Your task to perform on an android device: Go to ESPN.com Image 0: 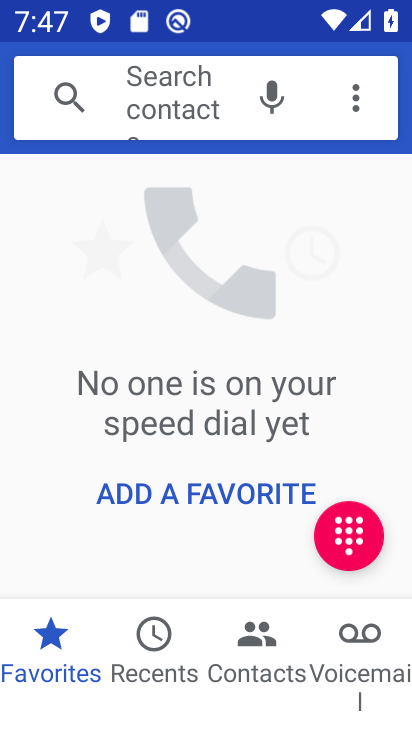
Step 0: press back button
Your task to perform on an android device: Go to ESPN.com Image 1: 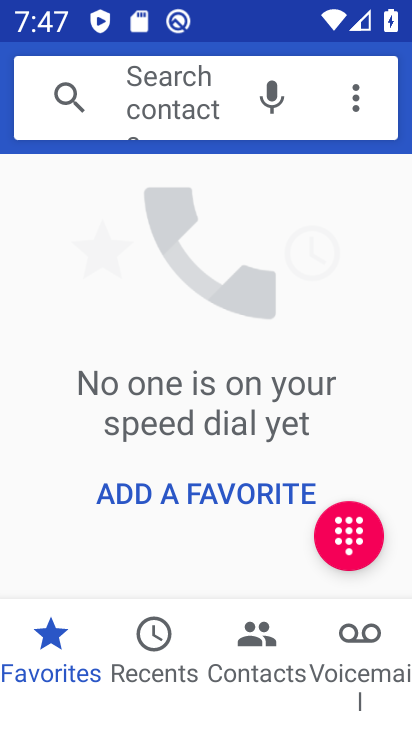
Step 1: press back button
Your task to perform on an android device: Go to ESPN.com Image 2: 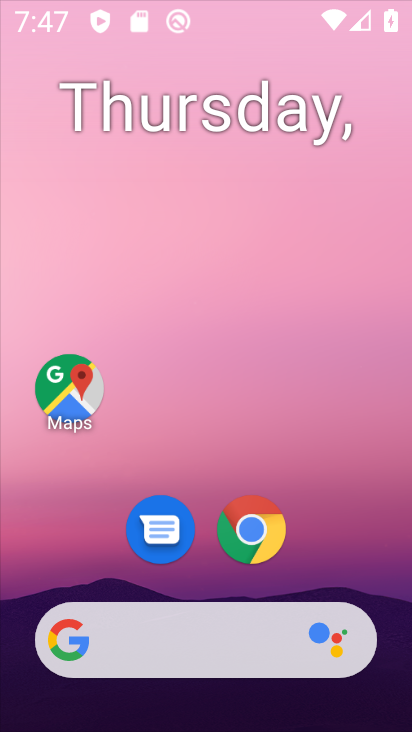
Step 2: press back button
Your task to perform on an android device: Go to ESPN.com Image 3: 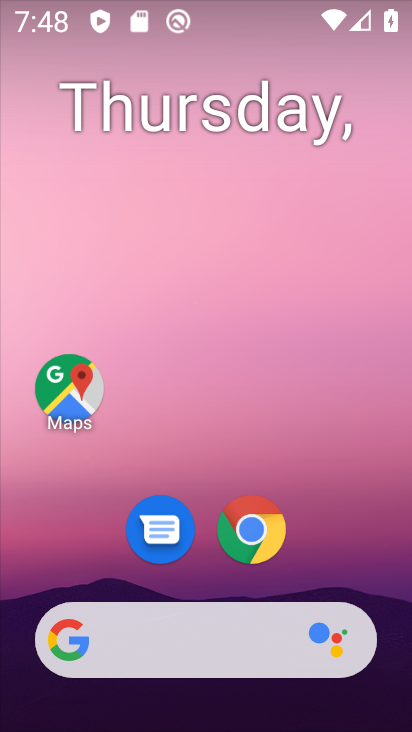
Step 3: drag from (250, 682) to (216, 54)
Your task to perform on an android device: Go to ESPN.com Image 4: 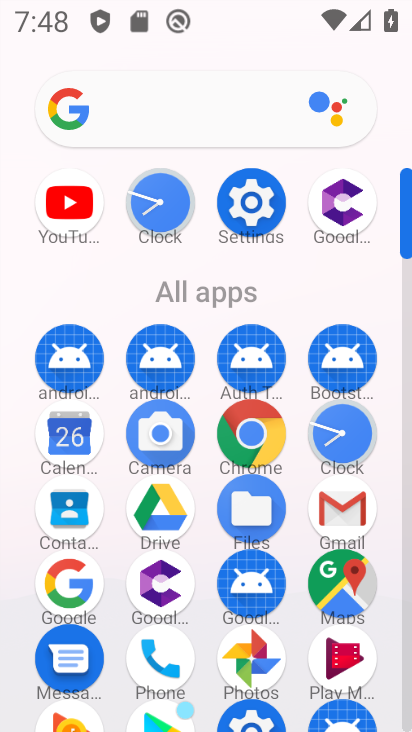
Step 4: drag from (185, 563) to (166, 56)
Your task to perform on an android device: Go to ESPN.com Image 5: 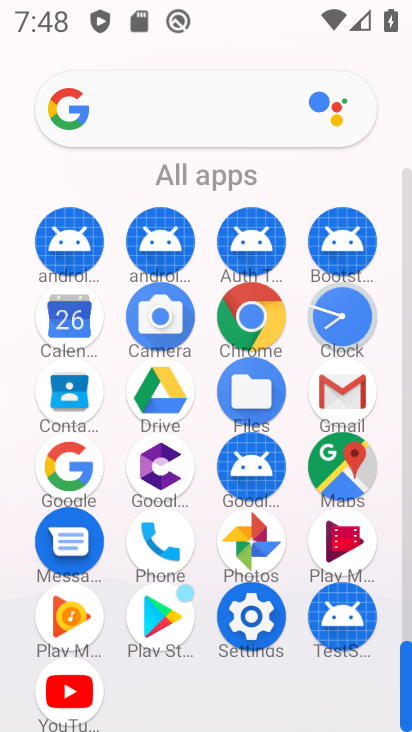
Step 5: click (250, 325)
Your task to perform on an android device: Go to ESPN.com Image 6: 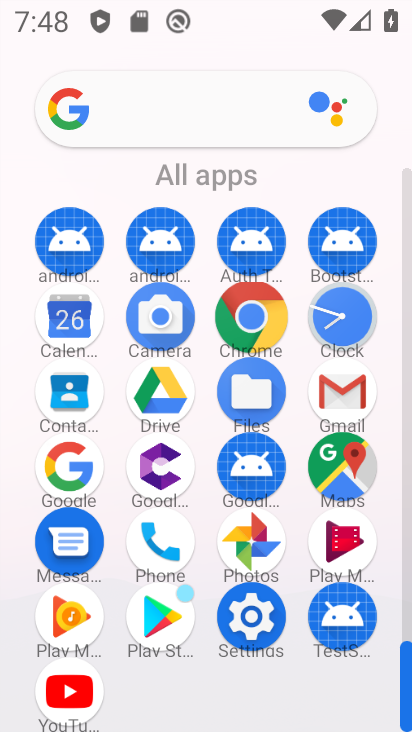
Step 6: click (249, 324)
Your task to perform on an android device: Go to ESPN.com Image 7: 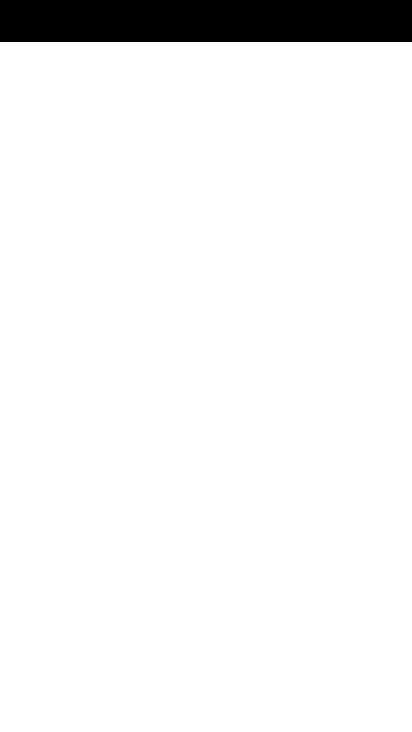
Step 7: click (248, 327)
Your task to perform on an android device: Go to ESPN.com Image 8: 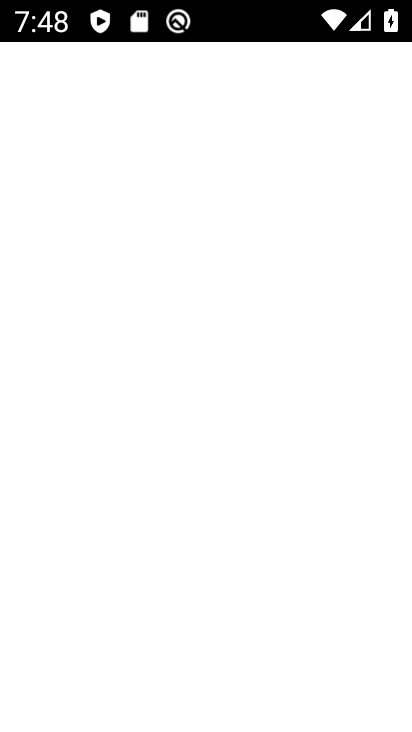
Step 8: click (247, 328)
Your task to perform on an android device: Go to ESPN.com Image 9: 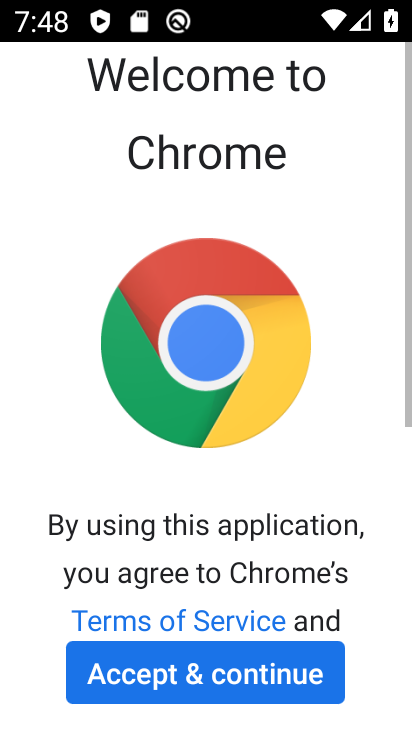
Step 9: click (244, 330)
Your task to perform on an android device: Go to ESPN.com Image 10: 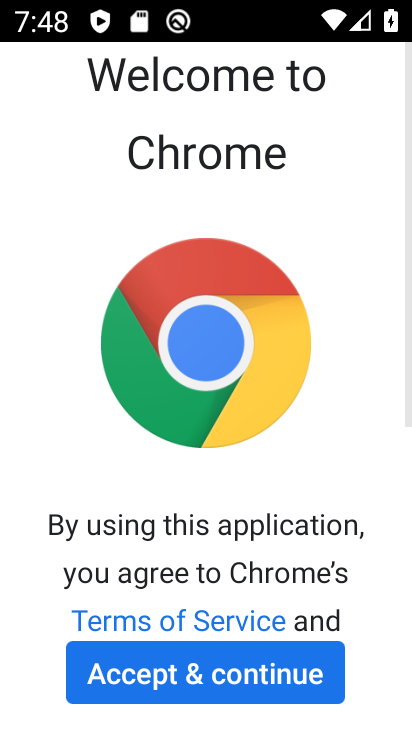
Step 10: click (238, 680)
Your task to perform on an android device: Go to ESPN.com Image 11: 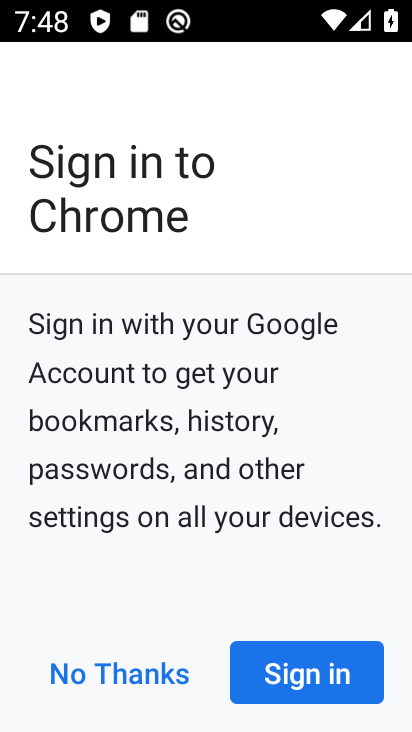
Step 11: click (238, 680)
Your task to perform on an android device: Go to ESPN.com Image 12: 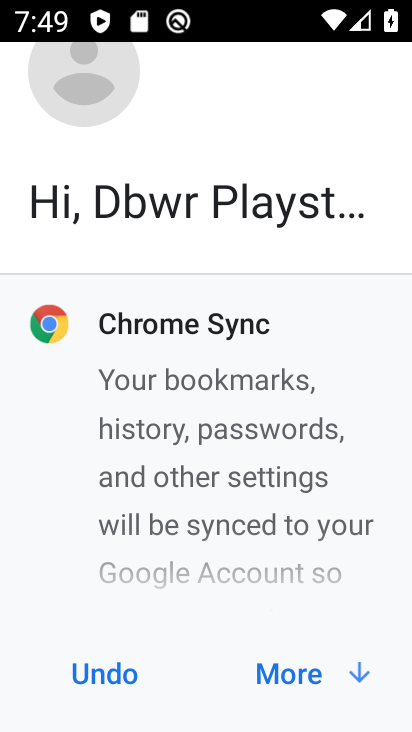
Step 12: click (305, 676)
Your task to perform on an android device: Go to ESPN.com Image 13: 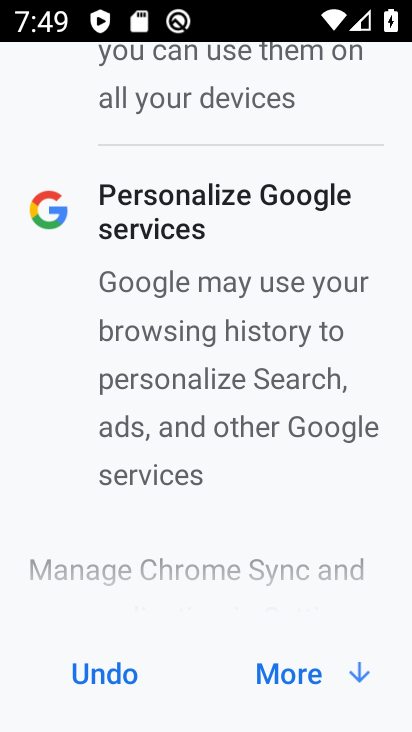
Step 13: click (307, 671)
Your task to perform on an android device: Go to ESPN.com Image 14: 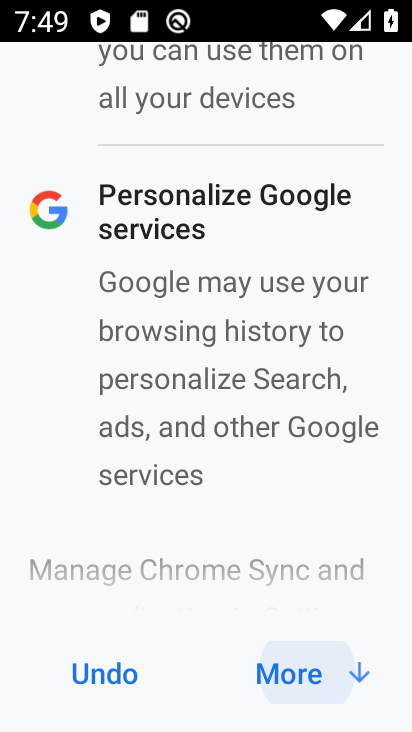
Step 14: click (308, 672)
Your task to perform on an android device: Go to ESPN.com Image 15: 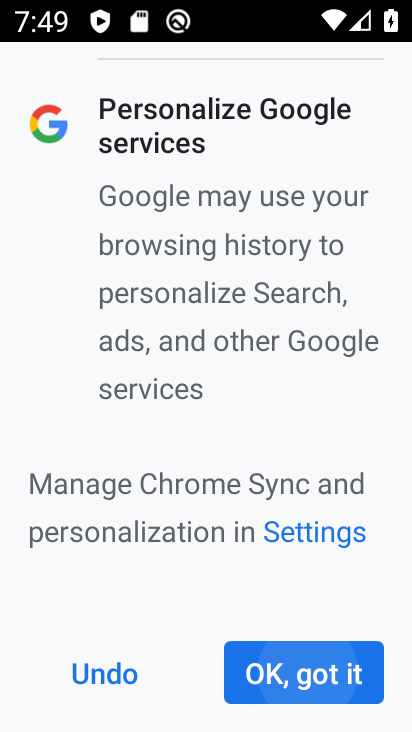
Step 15: click (297, 667)
Your task to perform on an android device: Go to ESPN.com Image 16: 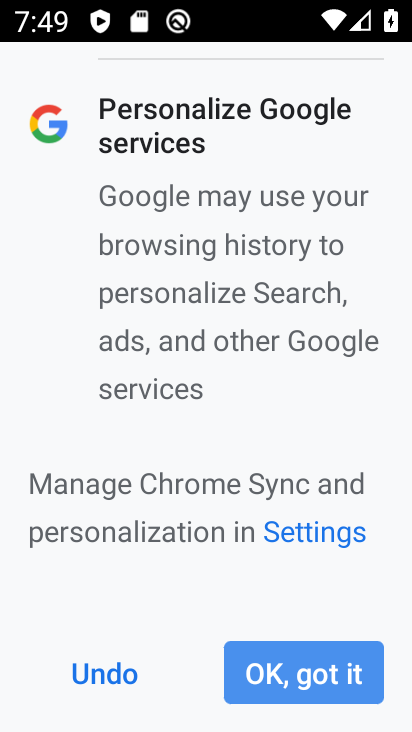
Step 16: click (297, 667)
Your task to perform on an android device: Go to ESPN.com Image 17: 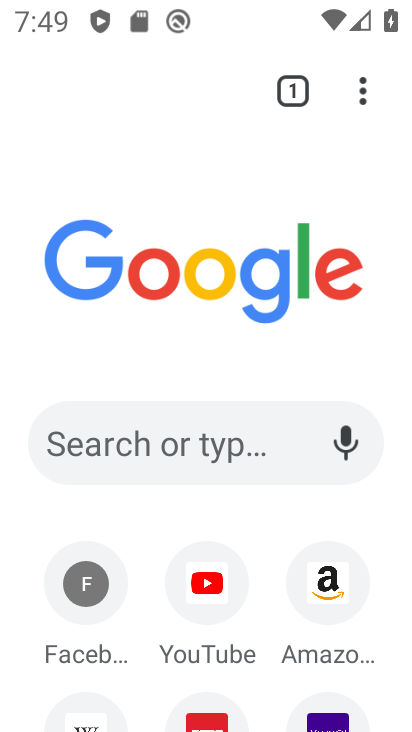
Step 17: drag from (247, 623) to (218, 191)
Your task to perform on an android device: Go to ESPN.com Image 18: 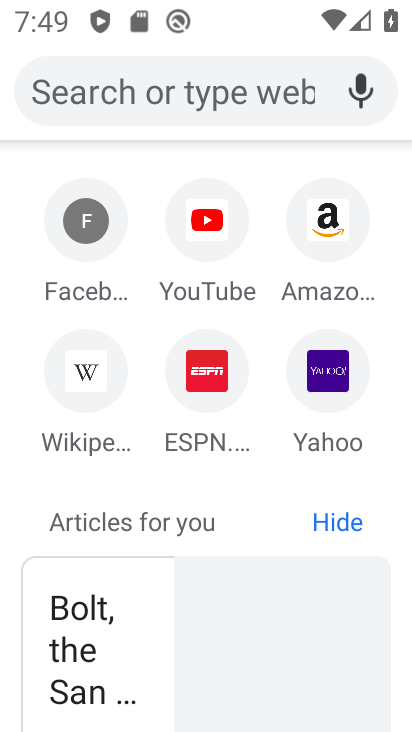
Step 18: drag from (231, 475) to (150, 46)
Your task to perform on an android device: Go to ESPN.com Image 19: 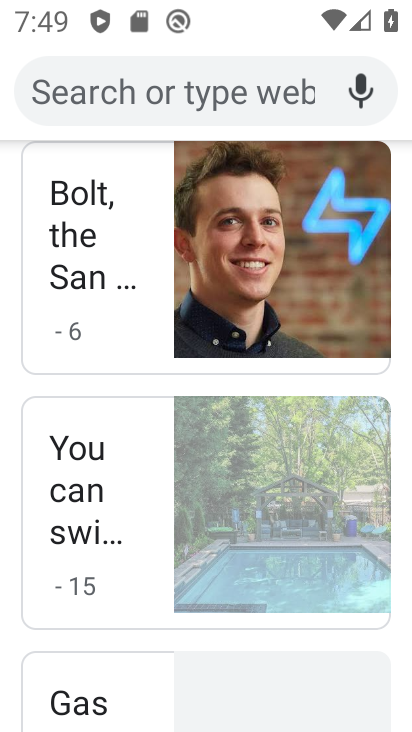
Step 19: drag from (185, 414) to (185, 202)
Your task to perform on an android device: Go to ESPN.com Image 20: 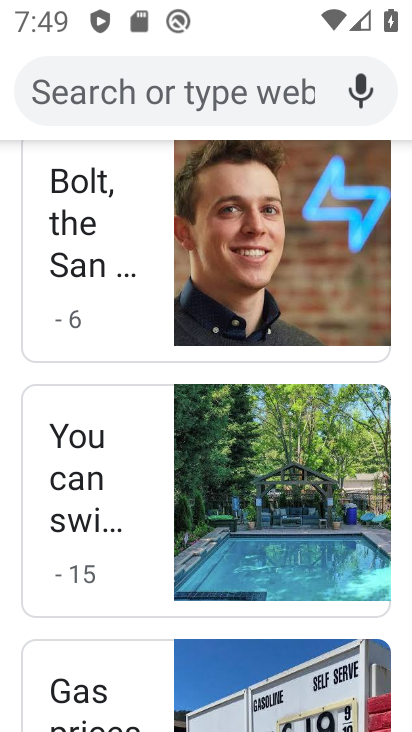
Step 20: drag from (211, 237) to (309, 573)
Your task to perform on an android device: Go to ESPN.com Image 21: 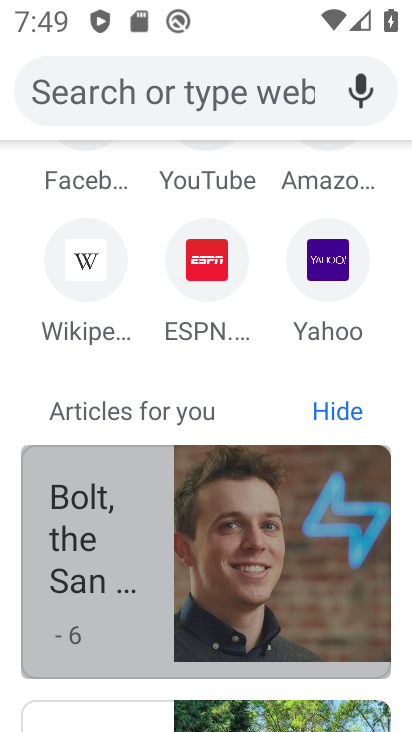
Step 21: drag from (224, 234) to (290, 521)
Your task to perform on an android device: Go to ESPN.com Image 22: 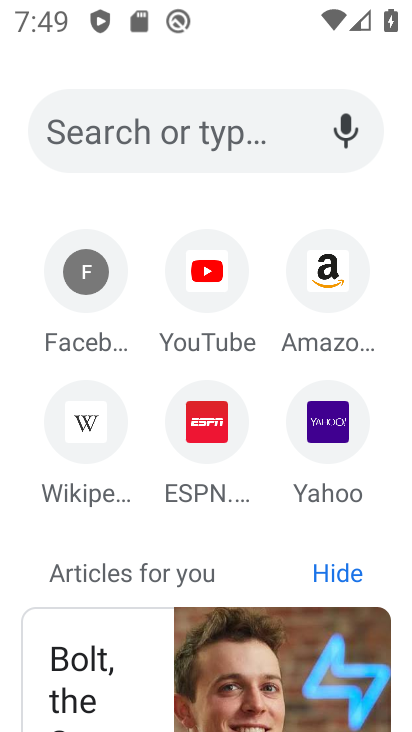
Step 22: drag from (199, 290) to (271, 537)
Your task to perform on an android device: Go to ESPN.com Image 23: 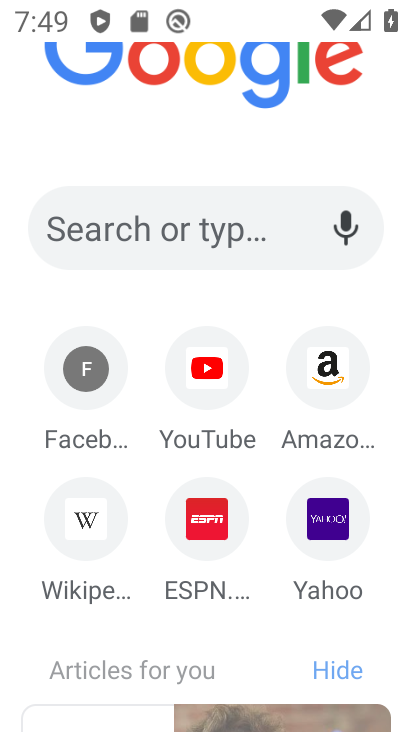
Step 23: click (202, 536)
Your task to perform on an android device: Go to ESPN.com Image 24: 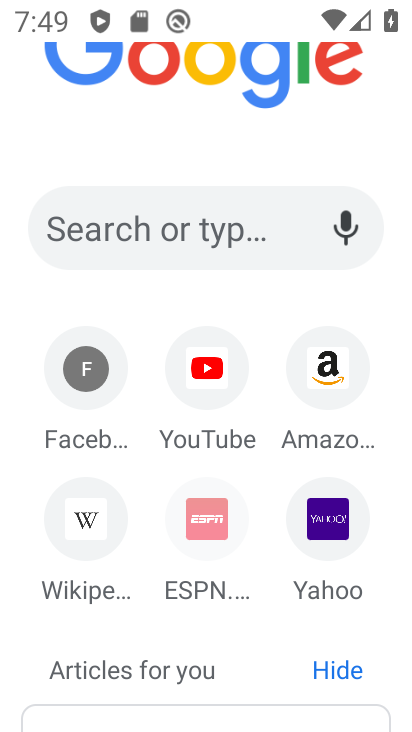
Step 24: click (210, 536)
Your task to perform on an android device: Go to ESPN.com Image 25: 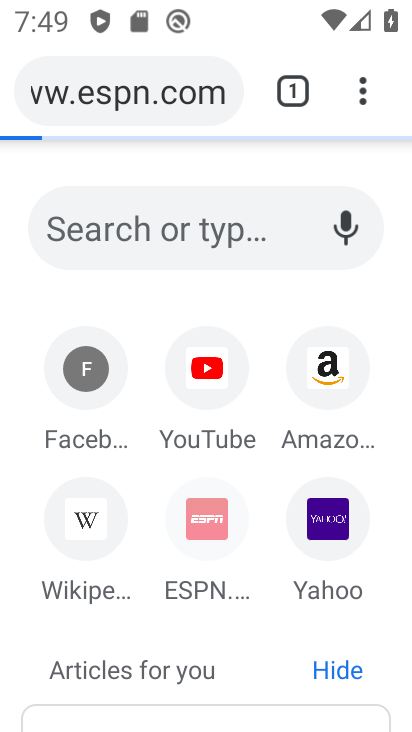
Step 25: click (209, 540)
Your task to perform on an android device: Go to ESPN.com Image 26: 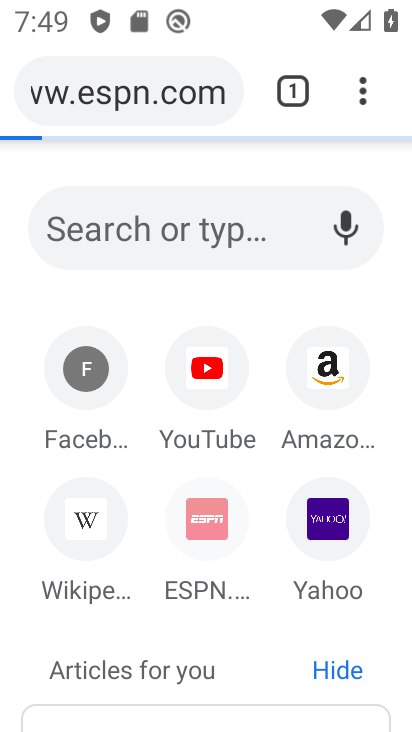
Step 26: click (209, 540)
Your task to perform on an android device: Go to ESPN.com Image 27: 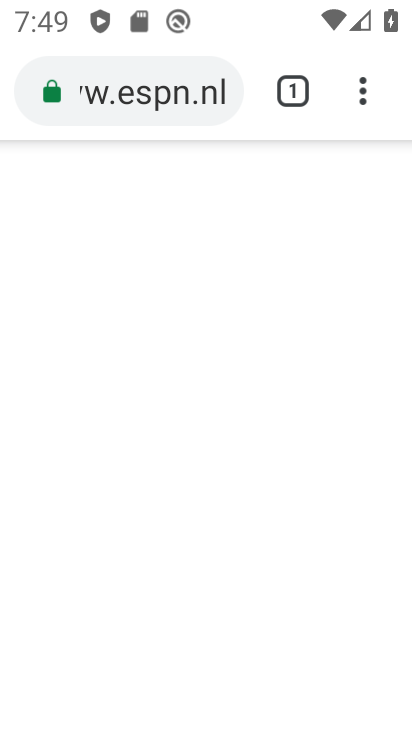
Step 27: task complete